Your task to perform on an android device: Open my contact list Image 0: 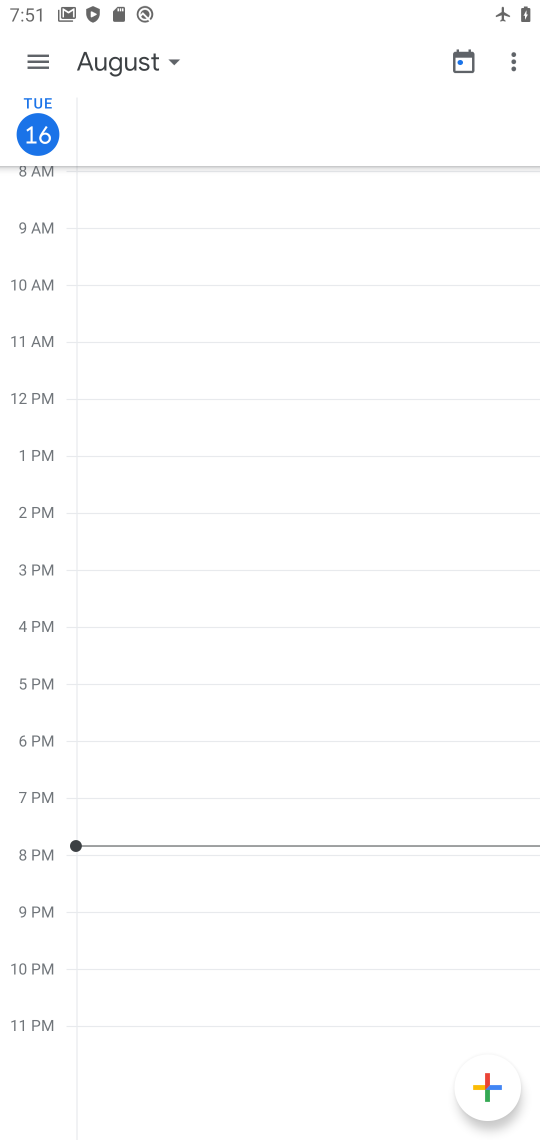
Step 0: press home button
Your task to perform on an android device: Open my contact list Image 1: 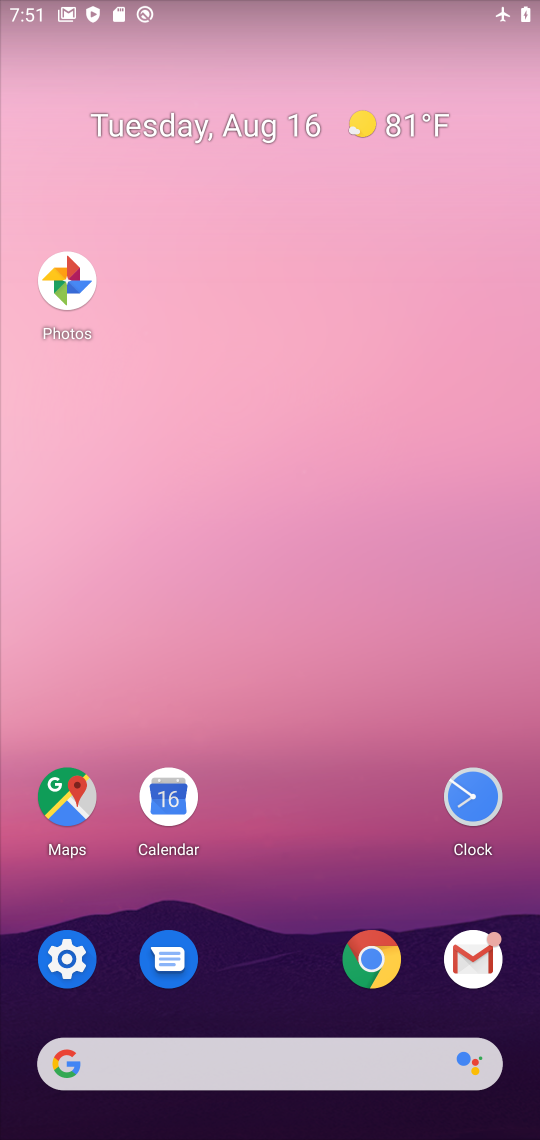
Step 1: drag from (279, 984) to (204, 212)
Your task to perform on an android device: Open my contact list Image 2: 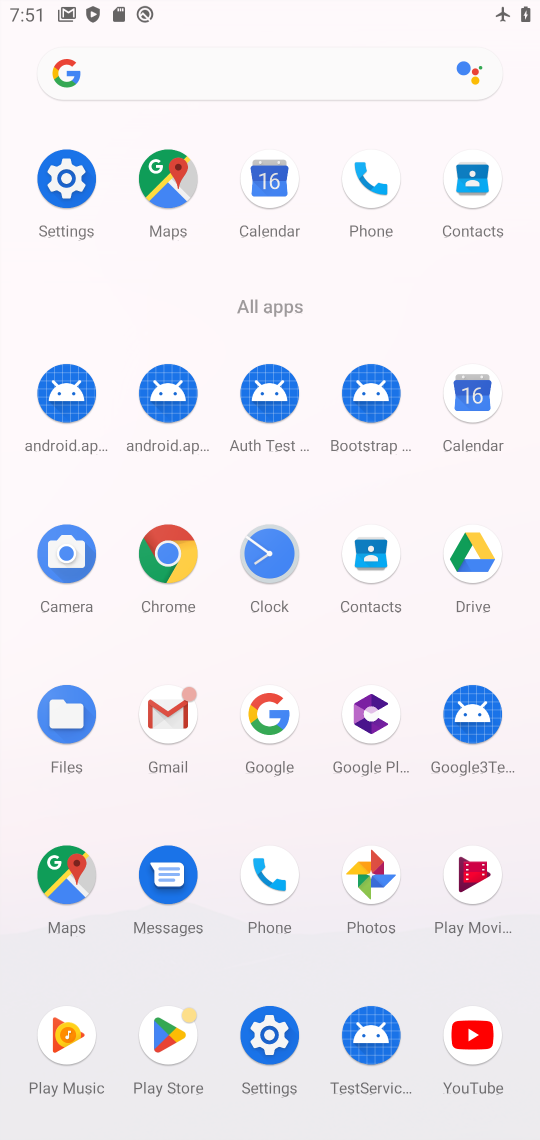
Step 2: click (459, 175)
Your task to perform on an android device: Open my contact list Image 3: 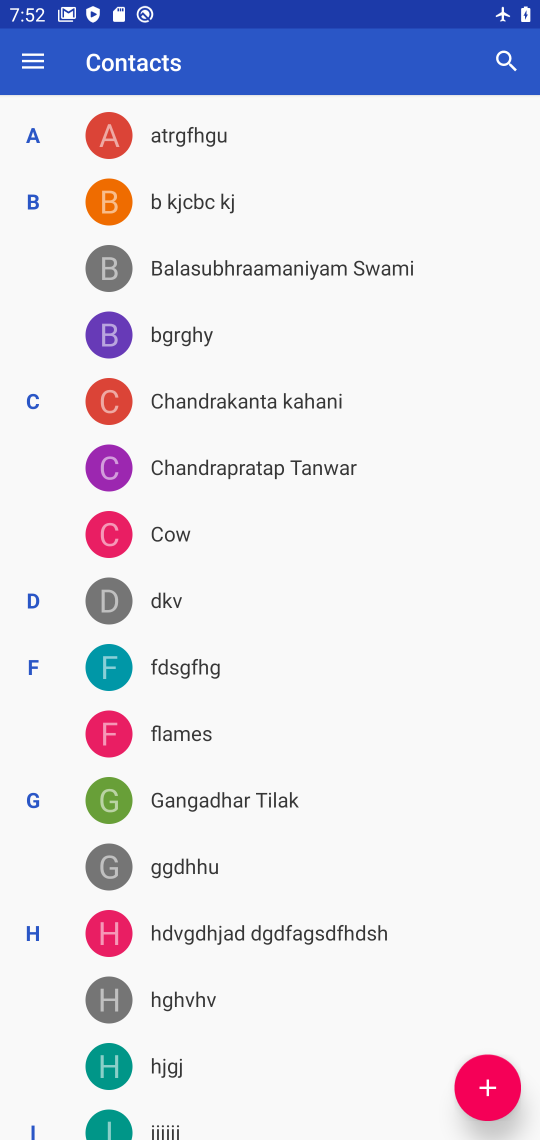
Step 3: task complete